Your task to perform on an android device: turn off data saver in the chrome app Image 0: 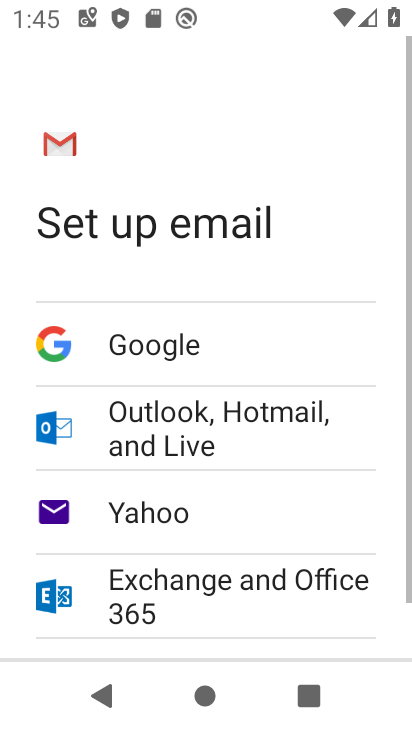
Step 0: drag from (276, 363) to (335, 232)
Your task to perform on an android device: turn off data saver in the chrome app Image 1: 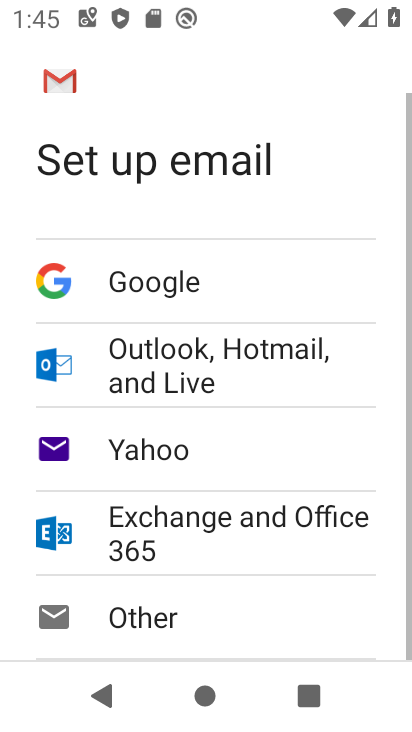
Step 1: press home button
Your task to perform on an android device: turn off data saver in the chrome app Image 2: 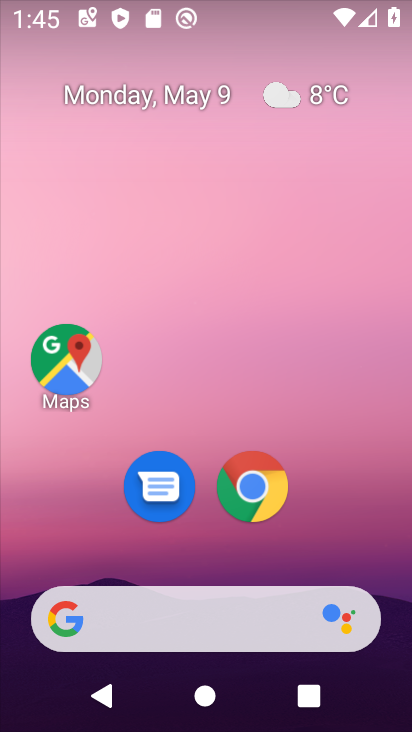
Step 2: drag from (201, 373) to (223, 327)
Your task to perform on an android device: turn off data saver in the chrome app Image 3: 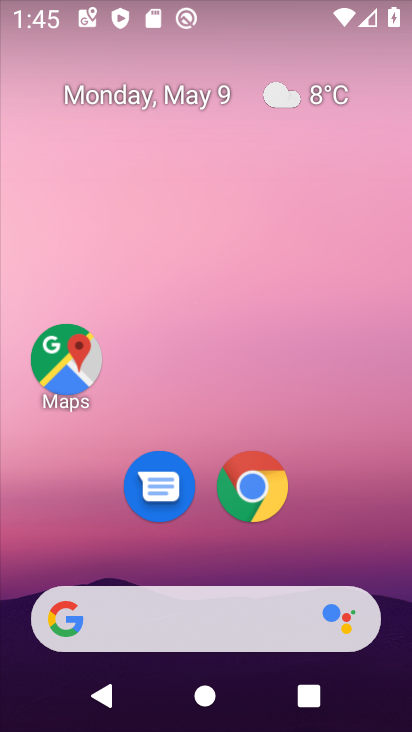
Step 3: click (250, 490)
Your task to perform on an android device: turn off data saver in the chrome app Image 4: 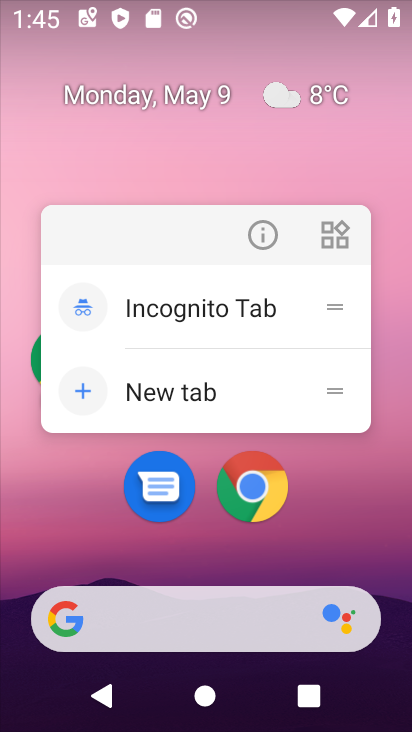
Step 4: click (251, 487)
Your task to perform on an android device: turn off data saver in the chrome app Image 5: 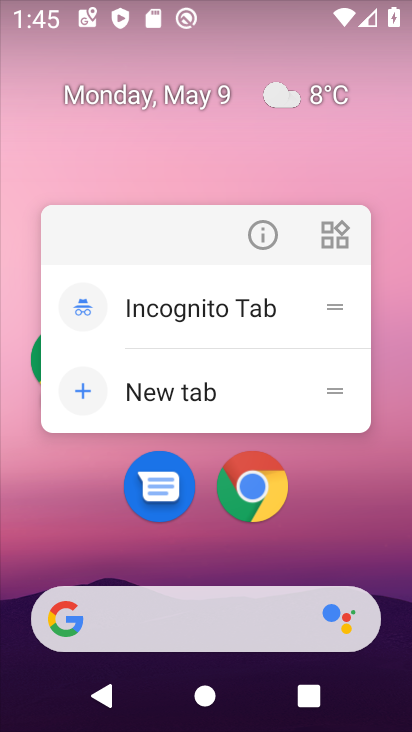
Step 5: click (251, 487)
Your task to perform on an android device: turn off data saver in the chrome app Image 6: 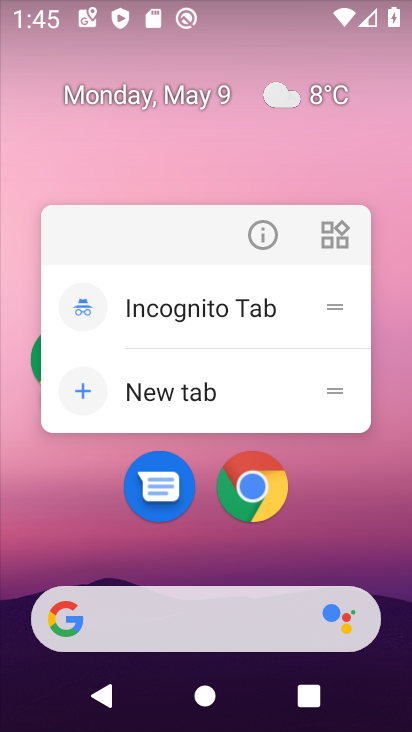
Step 6: click (229, 507)
Your task to perform on an android device: turn off data saver in the chrome app Image 7: 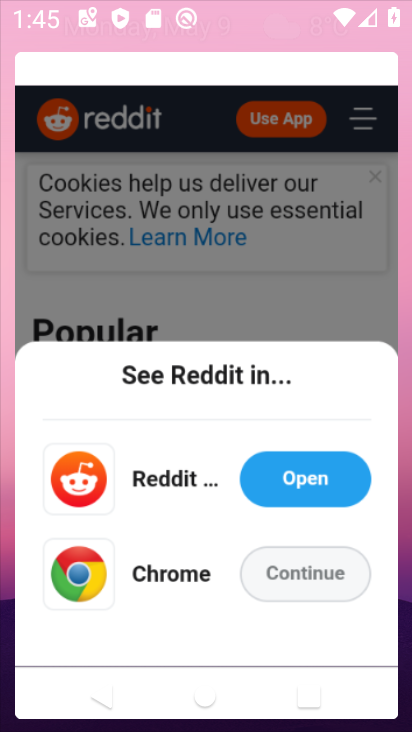
Step 7: click (230, 508)
Your task to perform on an android device: turn off data saver in the chrome app Image 8: 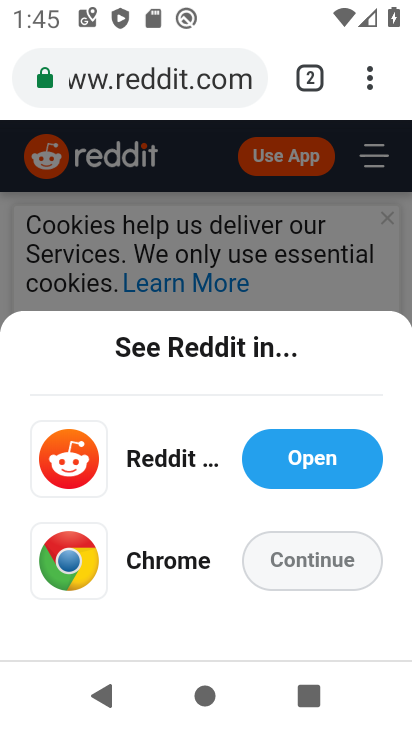
Step 8: click (104, 704)
Your task to perform on an android device: turn off data saver in the chrome app Image 9: 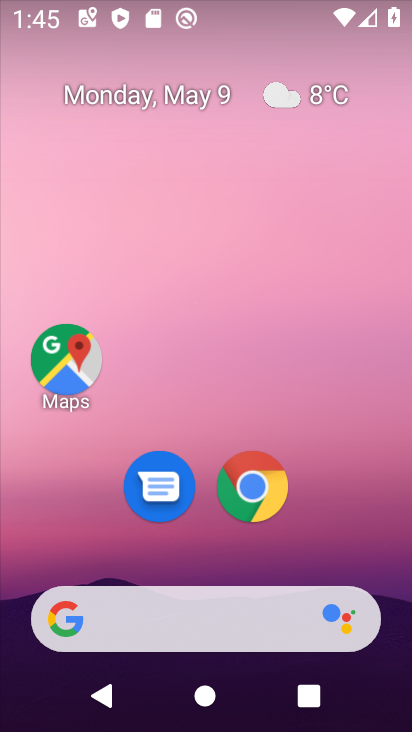
Step 9: click (219, 491)
Your task to perform on an android device: turn off data saver in the chrome app Image 10: 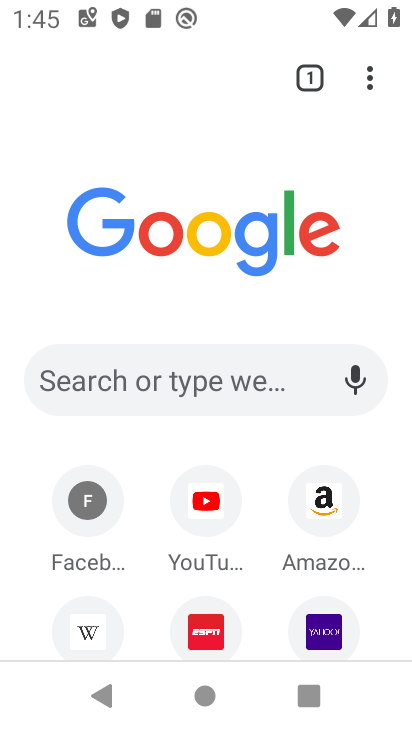
Step 10: click (371, 66)
Your task to perform on an android device: turn off data saver in the chrome app Image 11: 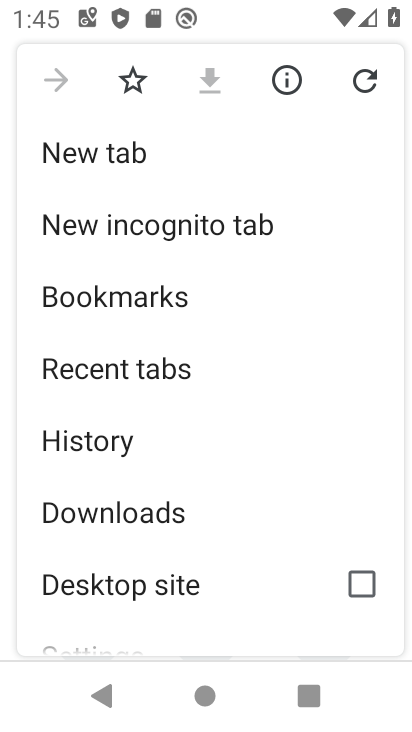
Step 11: drag from (158, 470) to (305, 212)
Your task to perform on an android device: turn off data saver in the chrome app Image 12: 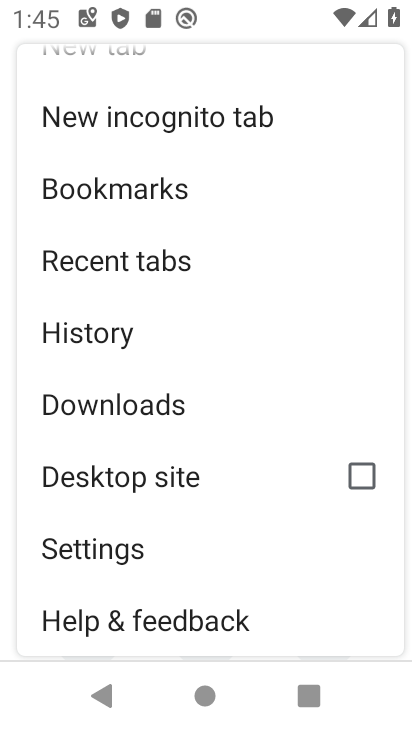
Step 12: drag from (243, 443) to (367, 141)
Your task to perform on an android device: turn off data saver in the chrome app Image 13: 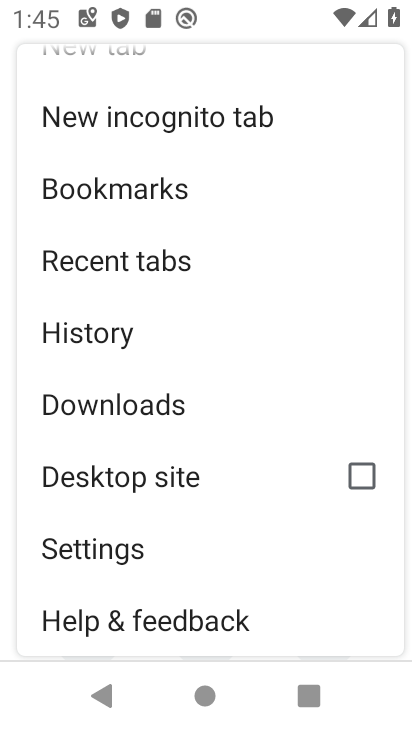
Step 13: click (207, 554)
Your task to perform on an android device: turn off data saver in the chrome app Image 14: 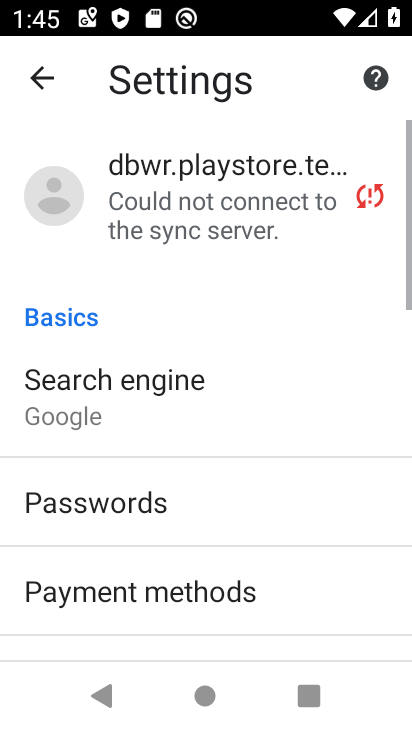
Step 14: drag from (173, 579) to (316, 231)
Your task to perform on an android device: turn off data saver in the chrome app Image 15: 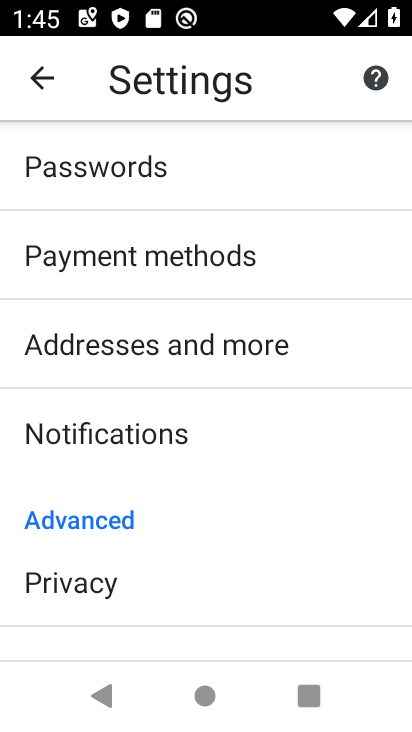
Step 15: drag from (278, 473) to (394, 169)
Your task to perform on an android device: turn off data saver in the chrome app Image 16: 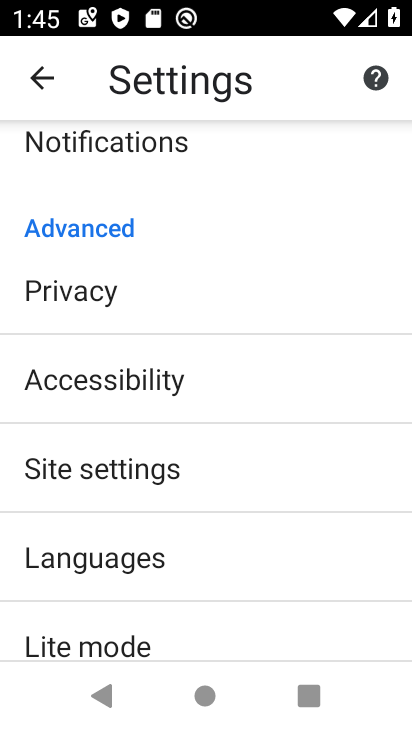
Step 16: drag from (264, 524) to (396, 225)
Your task to perform on an android device: turn off data saver in the chrome app Image 17: 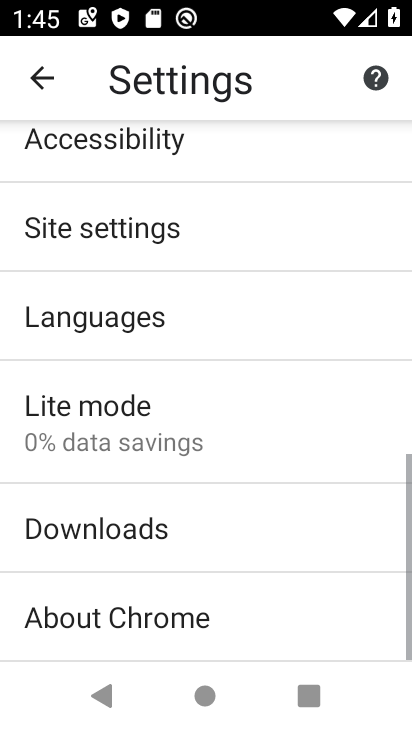
Step 17: drag from (102, 456) to (260, 213)
Your task to perform on an android device: turn off data saver in the chrome app Image 18: 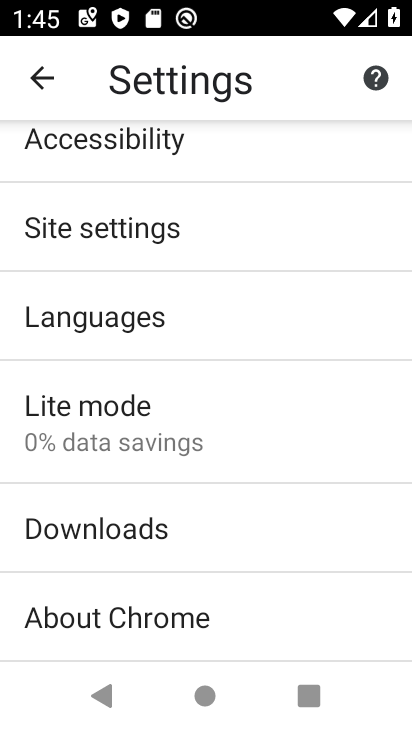
Step 18: click (110, 613)
Your task to perform on an android device: turn off data saver in the chrome app Image 19: 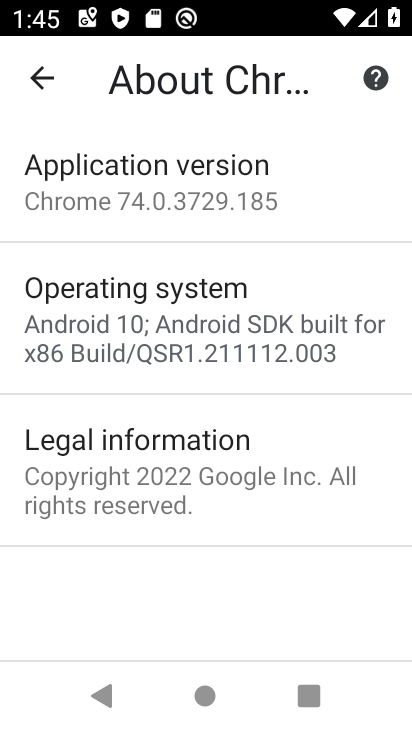
Step 19: click (52, 76)
Your task to perform on an android device: turn off data saver in the chrome app Image 20: 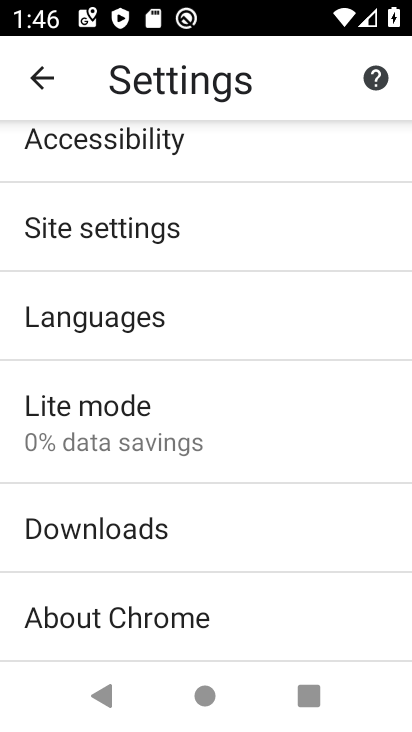
Step 20: task complete